Your task to perform on an android device: Open maps Image 0: 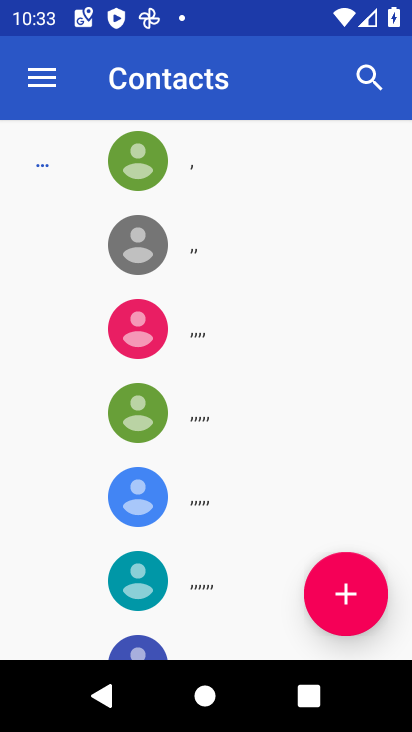
Step 0: press home button
Your task to perform on an android device: Open maps Image 1: 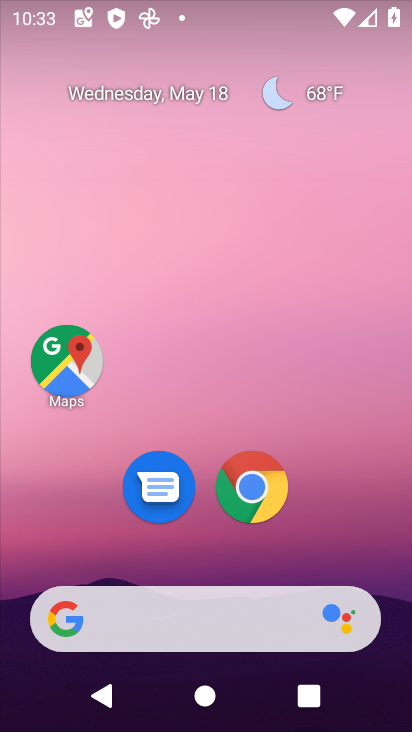
Step 1: drag from (364, 519) to (322, 158)
Your task to perform on an android device: Open maps Image 2: 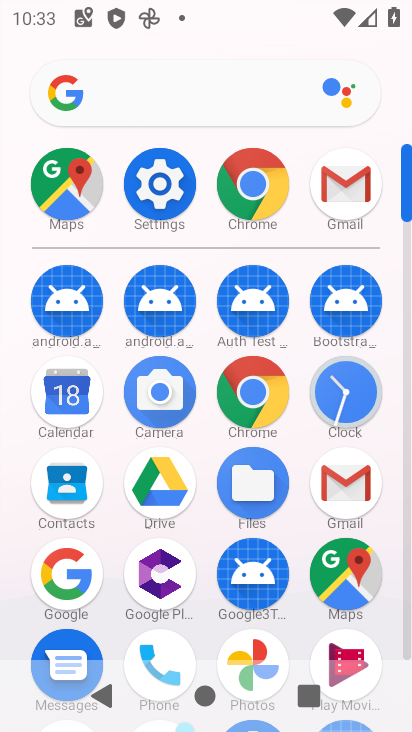
Step 2: click (342, 570)
Your task to perform on an android device: Open maps Image 3: 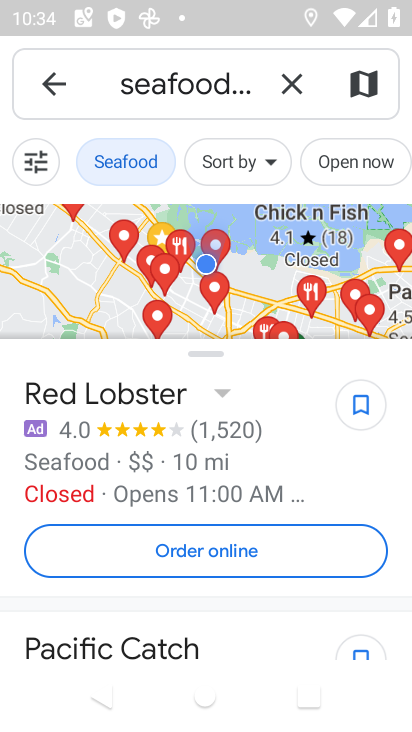
Step 3: task complete